Your task to perform on an android device: check the backup settings in the google photos Image 0: 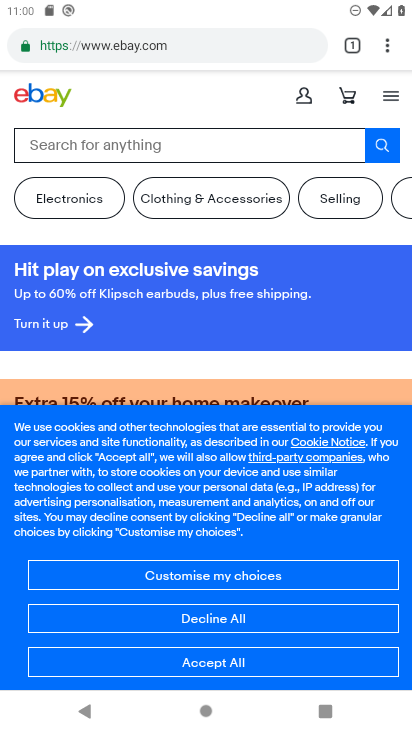
Step 0: press home button
Your task to perform on an android device: check the backup settings in the google photos Image 1: 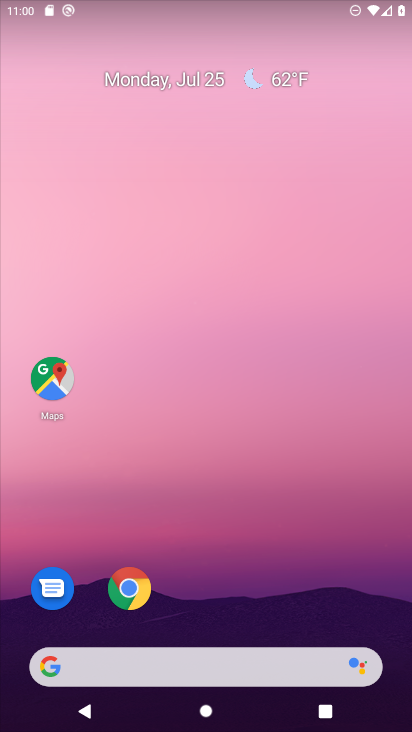
Step 1: drag from (49, 579) to (299, 94)
Your task to perform on an android device: check the backup settings in the google photos Image 2: 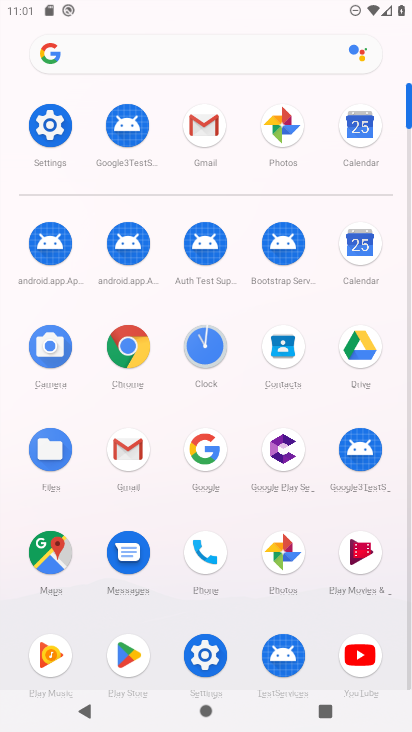
Step 2: click (284, 561)
Your task to perform on an android device: check the backup settings in the google photos Image 3: 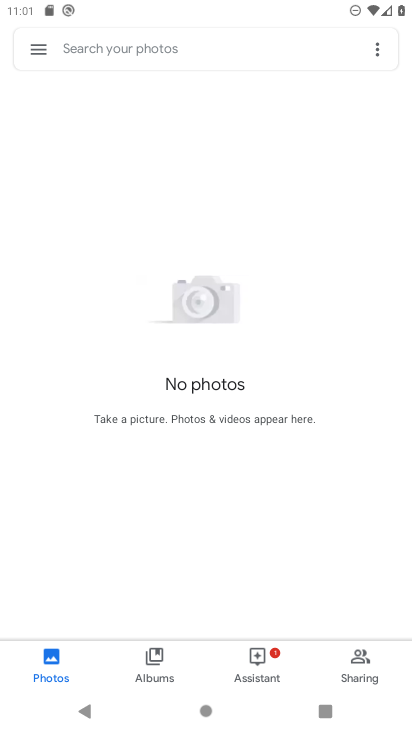
Step 3: click (37, 49)
Your task to perform on an android device: check the backup settings in the google photos Image 4: 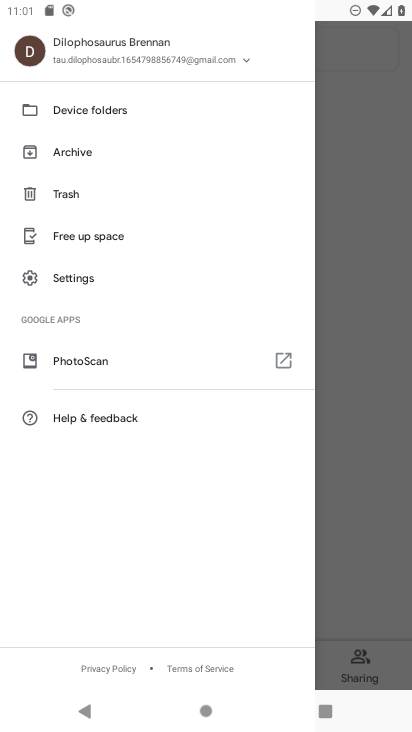
Step 4: click (81, 277)
Your task to perform on an android device: check the backup settings in the google photos Image 5: 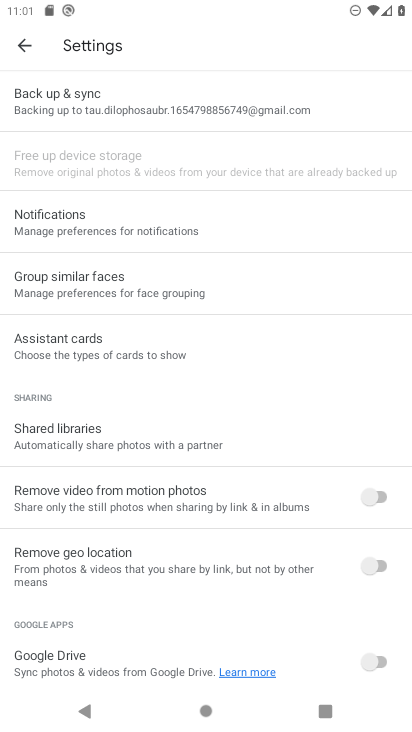
Step 5: click (14, 101)
Your task to perform on an android device: check the backup settings in the google photos Image 6: 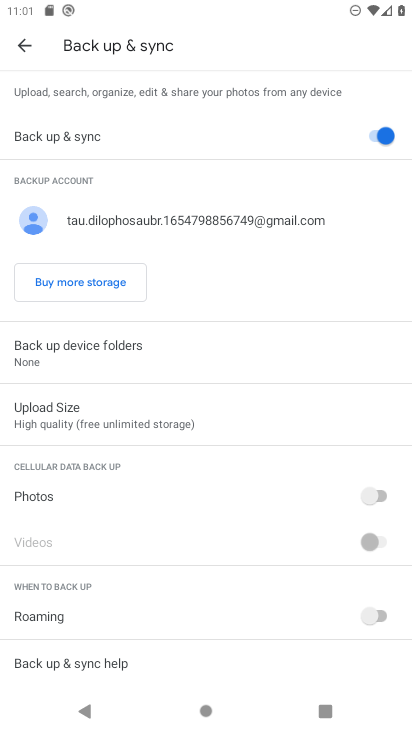
Step 6: task complete